Your task to perform on an android device: delete browsing data in the chrome app Image 0: 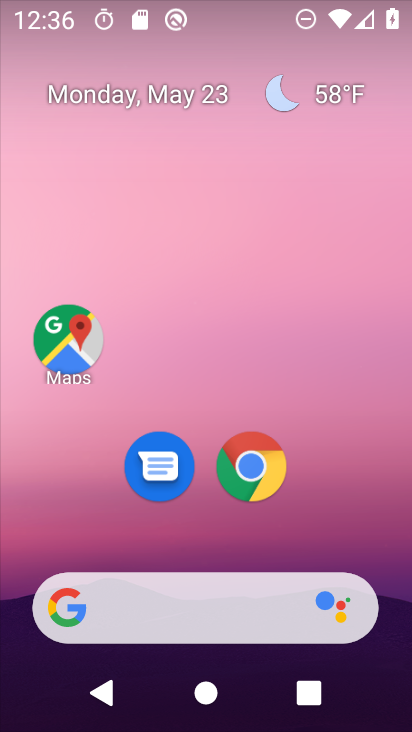
Step 0: click (241, 470)
Your task to perform on an android device: delete browsing data in the chrome app Image 1: 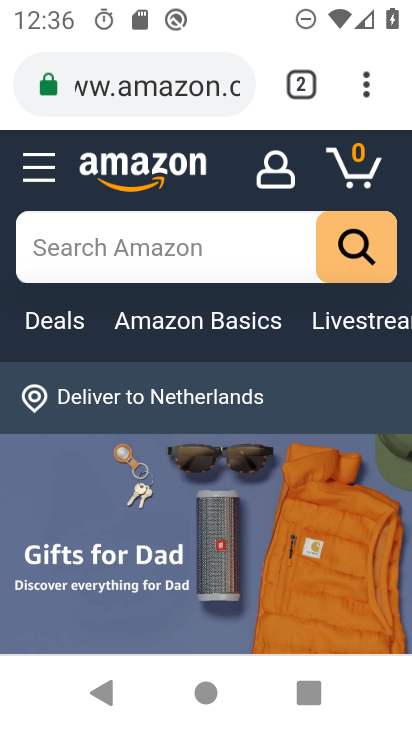
Step 1: click (362, 76)
Your task to perform on an android device: delete browsing data in the chrome app Image 2: 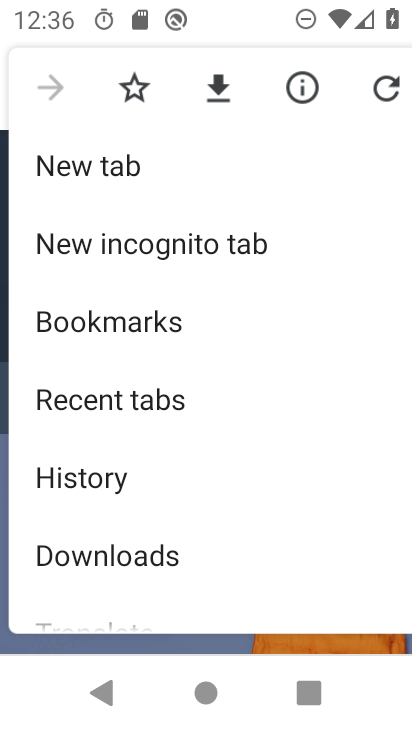
Step 2: drag from (230, 499) to (250, 50)
Your task to perform on an android device: delete browsing data in the chrome app Image 3: 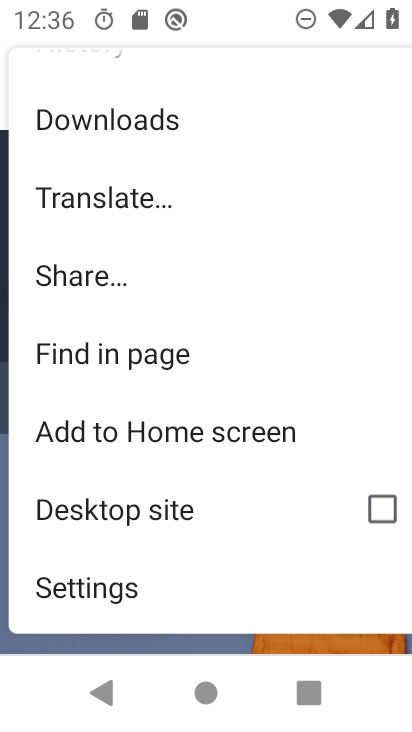
Step 3: click (88, 599)
Your task to perform on an android device: delete browsing data in the chrome app Image 4: 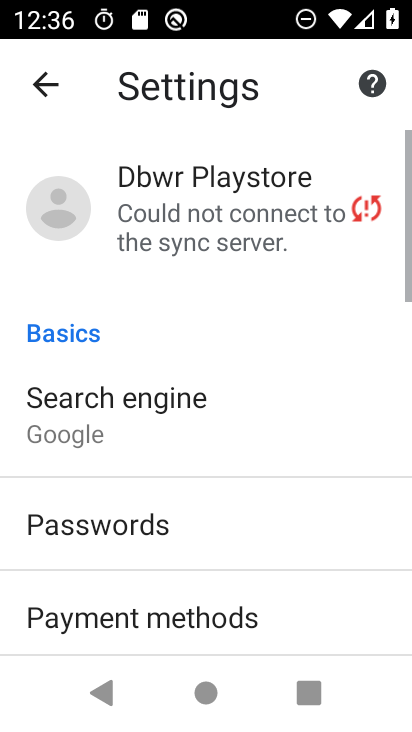
Step 4: drag from (163, 502) to (230, 173)
Your task to perform on an android device: delete browsing data in the chrome app Image 5: 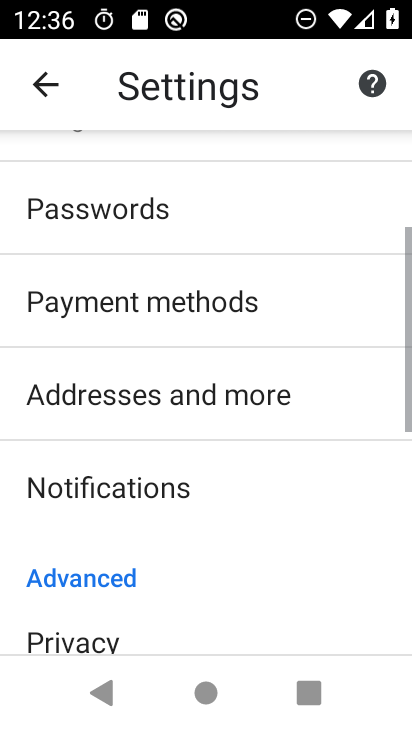
Step 5: drag from (249, 595) to (252, 259)
Your task to perform on an android device: delete browsing data in the chrome app Image 6: 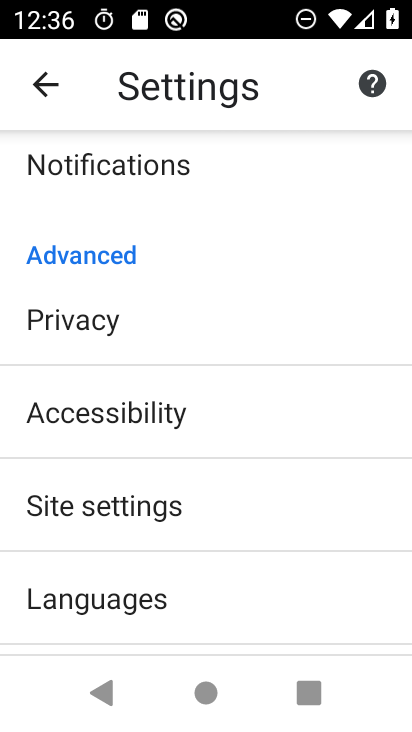
Step 6: click (95, 331)
Your task to perform on an android device: delete browsing data in the chrome app Image 7: 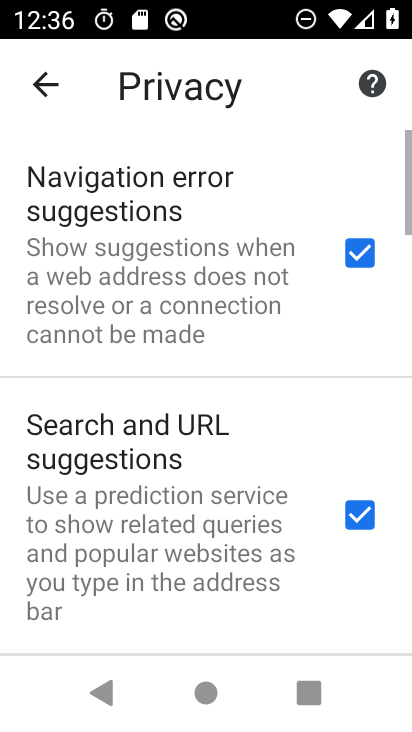
Step 7: drag from (251, 605) to (299, 28)
Your task to perform on an android device: delete browsing data in the chrome app Image 8: 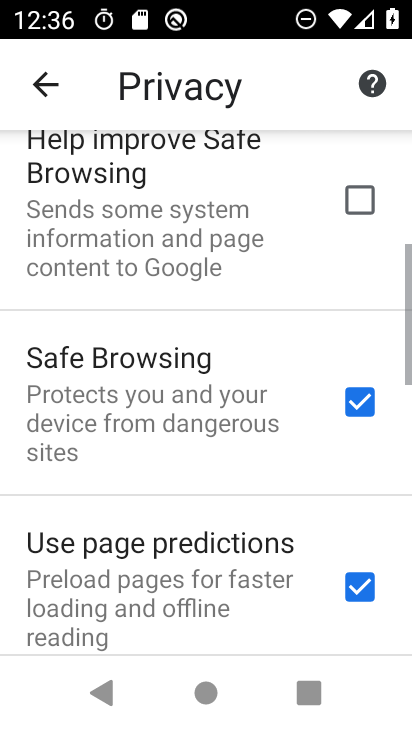
Step 8: drag from (197, 644) to (232, 48)
Your task to perform on an android device: delete browsing data in the chrome app Image 9: 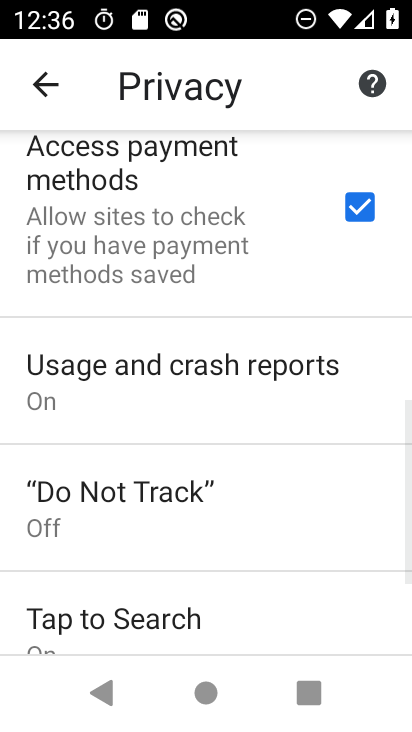
Step 9: drag from (243, 639) to (233, 124)
Your task to perform on an android device: delete browsing data in the chrome app Image 10: 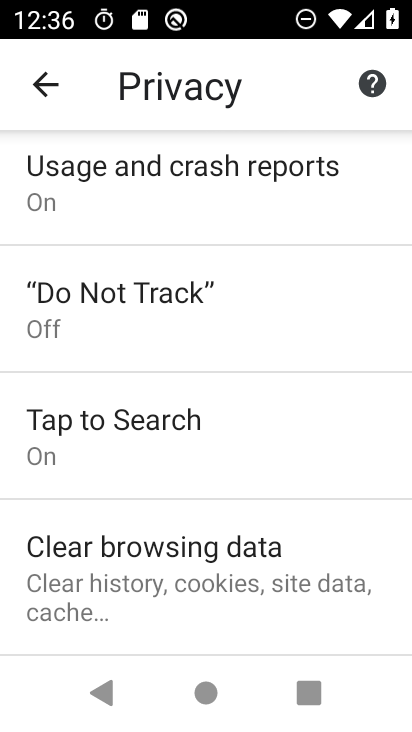
Step 10: click (179, 577)
Your task to perform on an android device: delete browsing data in the chrome app Image 11: 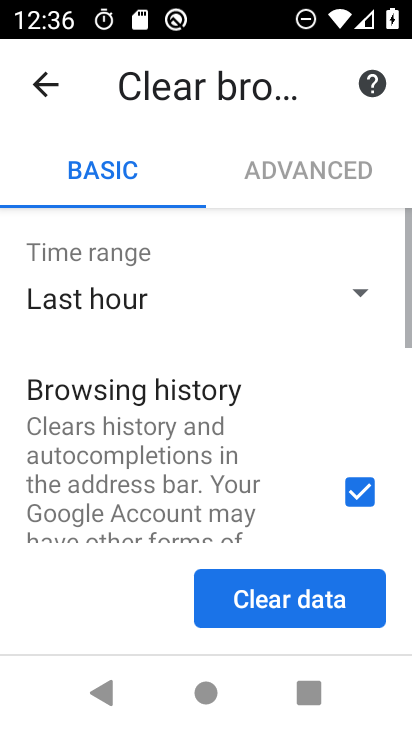
Step 11: drag from (278, 482) to (292, 205)
Your task to perform on an android device: delete browsing data in the chrome app Image 12: 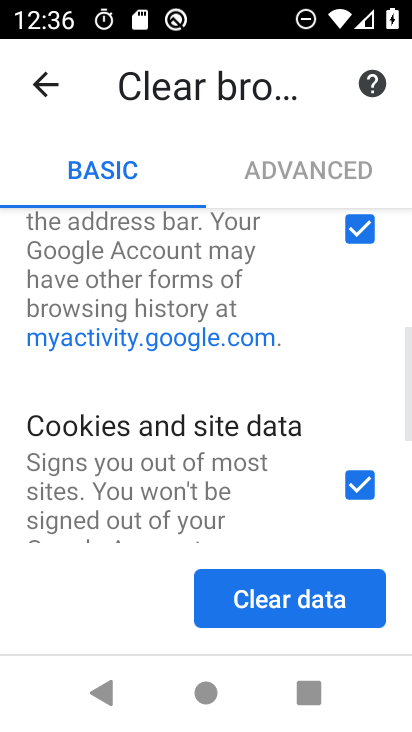
Step 12: drag from (162, 470) to (147, 274)
Your task to perform on an android device: delete browsing data in the chrome app Image 13: 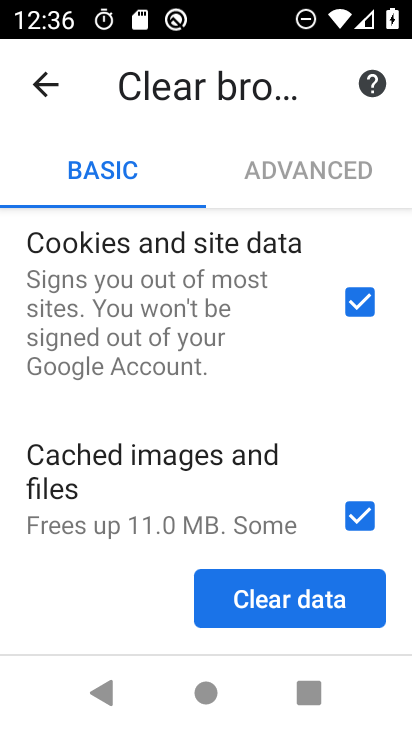
Step 13: click (352, 304)
Your task to perform on an android device: delete browsing data in the chrome app Image 14: 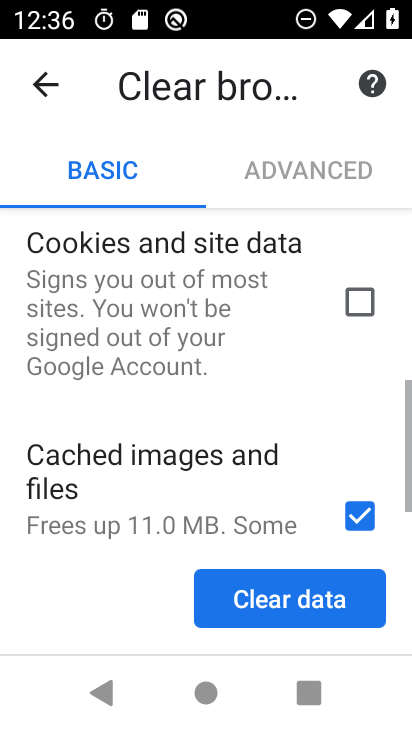
Step 14: click (361, 516)
Your task to perform on an android device: delete browsing data in the chrome app Image 15: 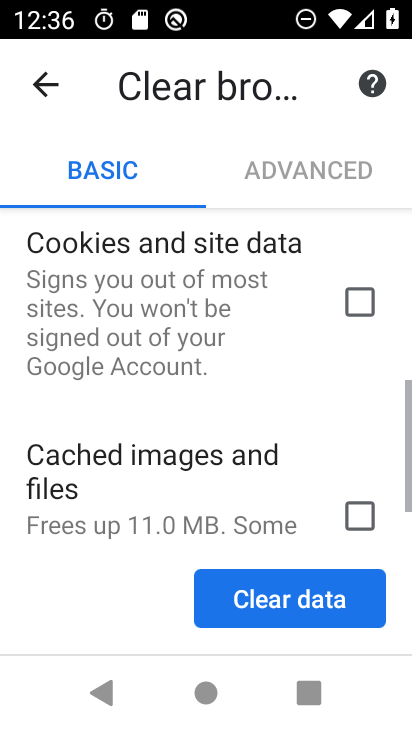
Step 15: click (295, 594)
Your task to perform on an android device: delete browsing data in the chrome app Image 16: 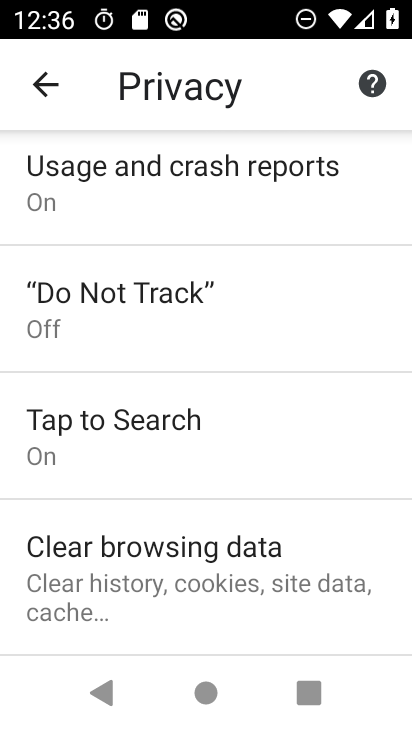
Step 16: task complete